Your task to perform on an android device: Open calendar and show me the second week of next month Image 0: 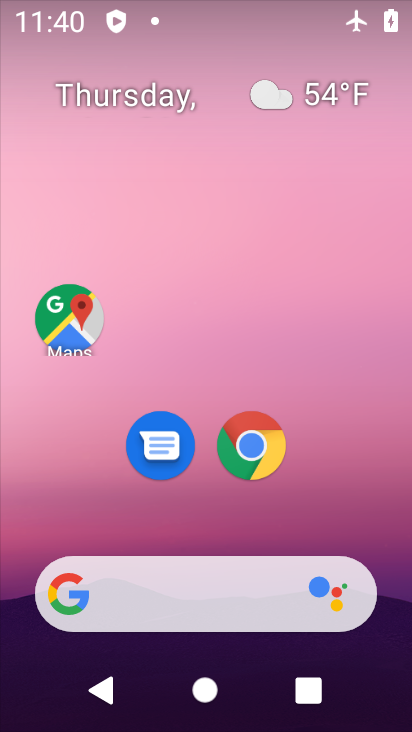
Step 0: drag from (396, 624) to (253, 84)
Your task to perform on an android device: Open calendar and show me the second week of next month Image 1: 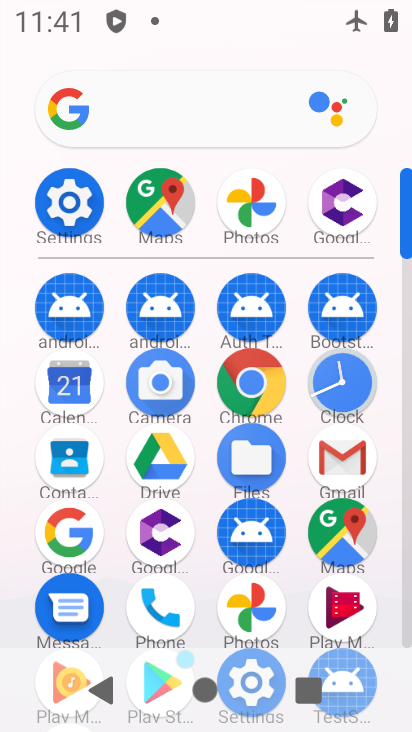
Step 1: click (82, 393)
Your task to perform on an android device: Open calendar and show me the second week of next month Image 2: 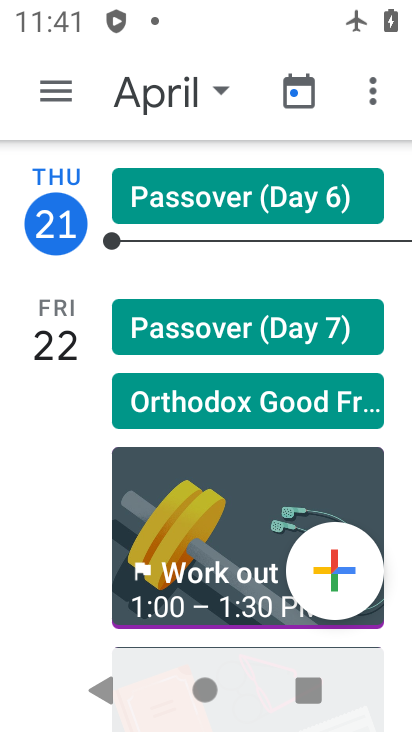
Step 2: click (178, 88)
Your task to perform on an android device: Open calendar and show me the second week of next month Image 3: 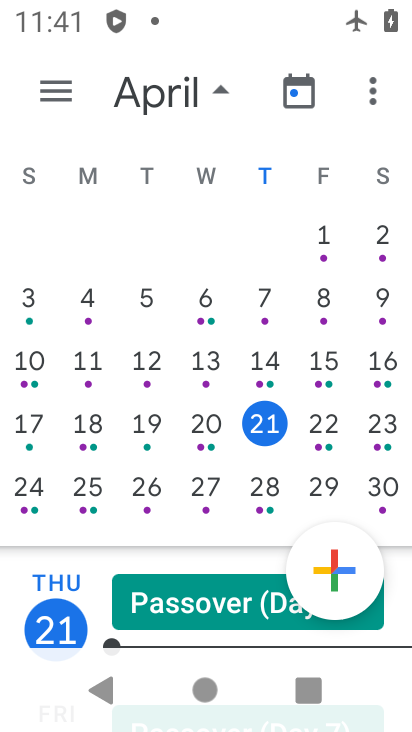
Step 3: drag from (364, 334) to (2, 368)
Your task to perform on an android device: Open calendar and show me the second week of next month Image 4: 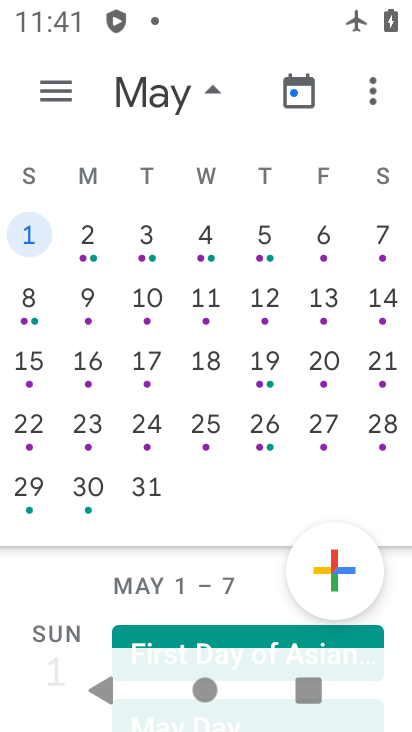
Step 4: click (32, 310)
Your task to perform on an android device: Open calendar and show me the second week of next month Image 5: 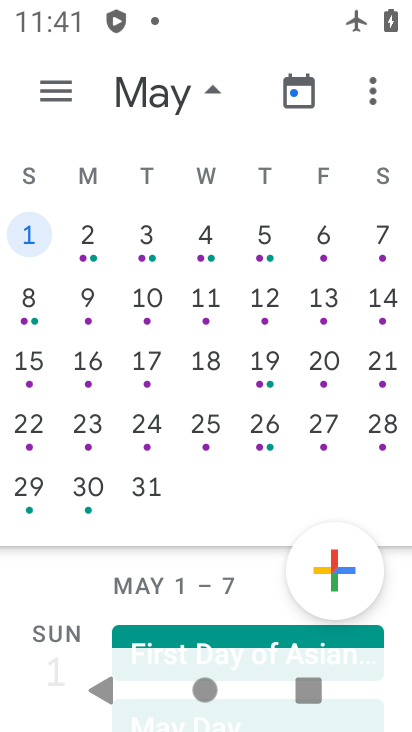
Step 5: click (32, 298)
Your task to perform on an android device: Open calendar and show me the second week of next month Image 6: 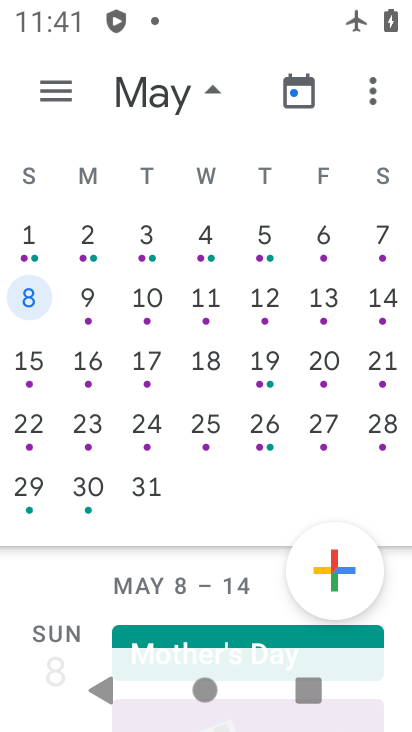
Step 6: task complete